Your task to perform on an android device: Show me popular videos on Youtube Image 0: 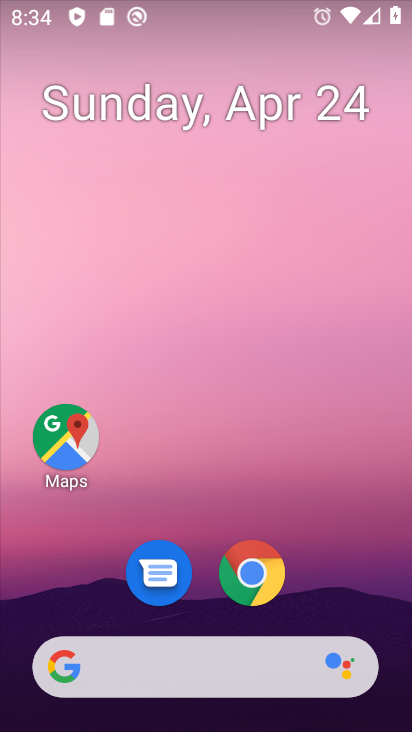
Step 0: drag from (336, 598) to (255, 49)
Your task to perform on an android device: Show me popular videos on Youtube Image 1: 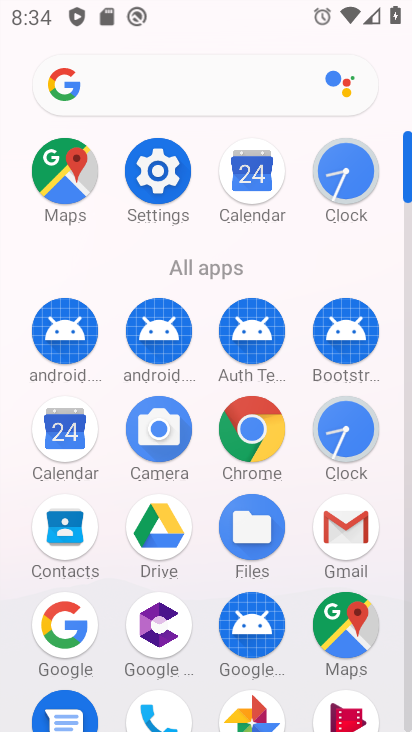
Step 1: click (246, 77)
Your task to perform on an android device: Show me popular videos on Youtube Image 2: 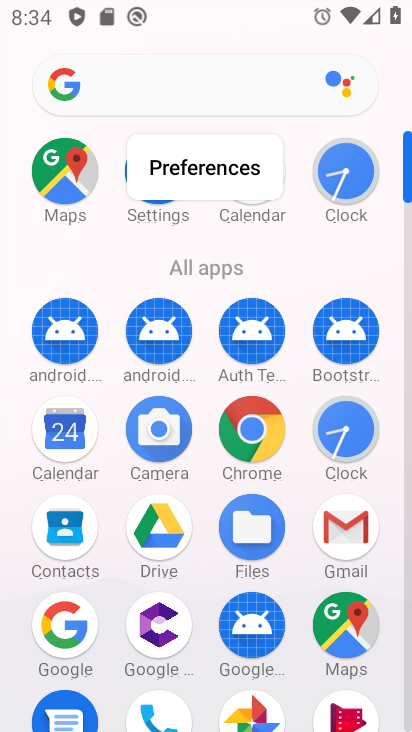
Step 2: drag from (391, 679) to (357, 98)
Your task to perform on an android device: Show me popular videos on Youtube Image 3: 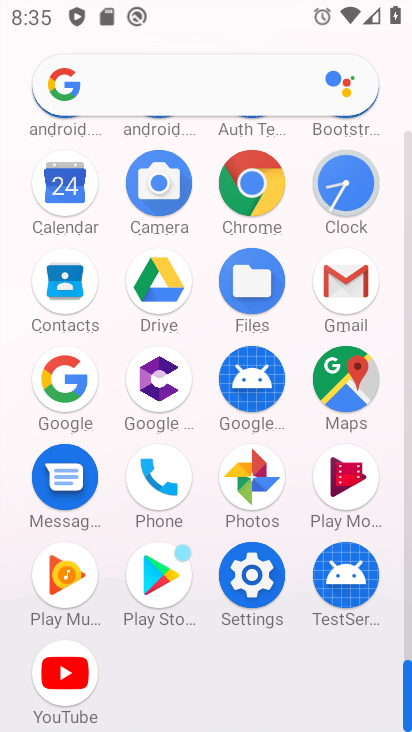
Step 3: click (65, 676)
Your task to perform on an android device: Show me popular videos on Youtube Image 4: 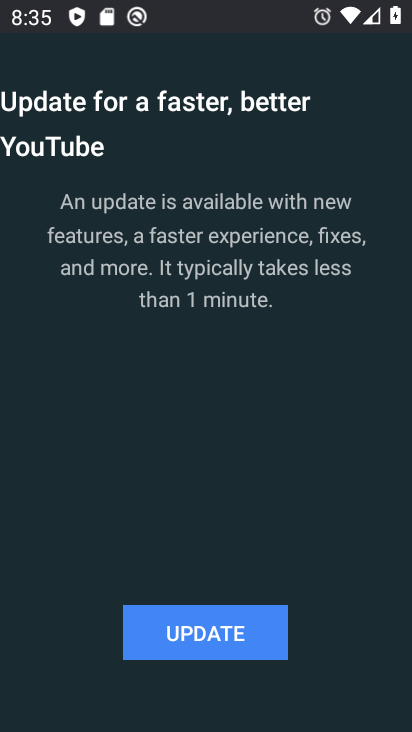
Step 4: click (194, 641)
Your task to perform on an android device: Show me popular videos on Youtube Image 5: 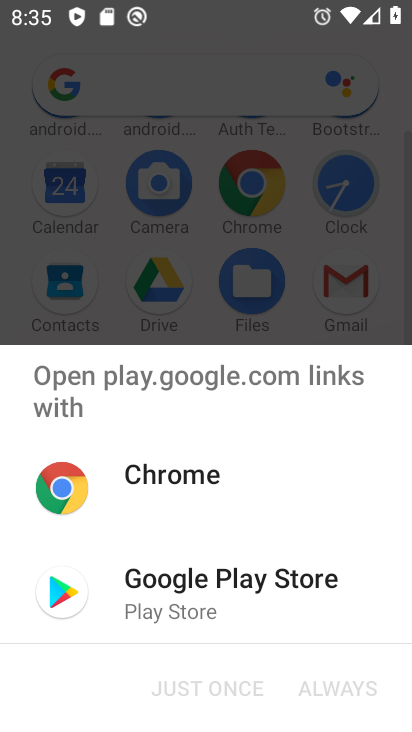
Step 5: click (169, 588)
Your task to perform on an android device: Show me popular videos on Youtube Image 6: 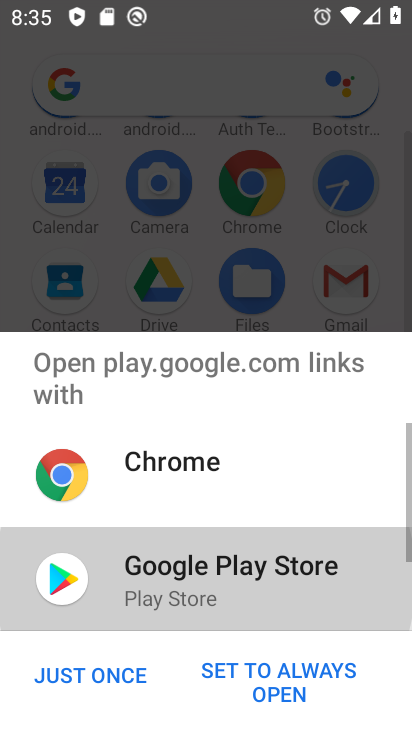
Step 6: click (169, 588)
Your task to perform on an android device: Show me popular videos on Youtube Image 7: 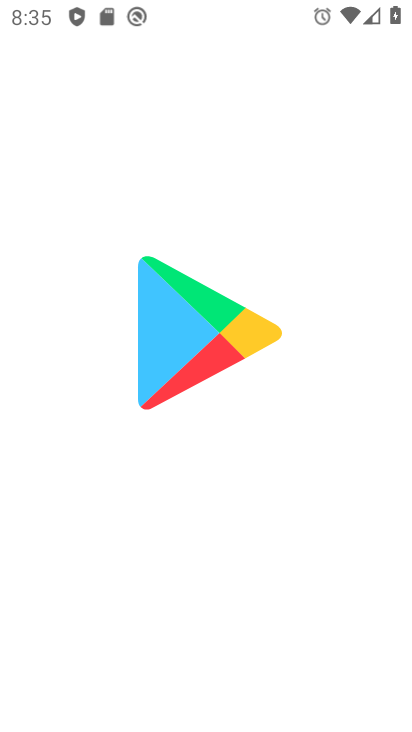
Step 7: click (94, 680)
Your task to perform on an android device: Show me popular videos on Youtube Image 8: 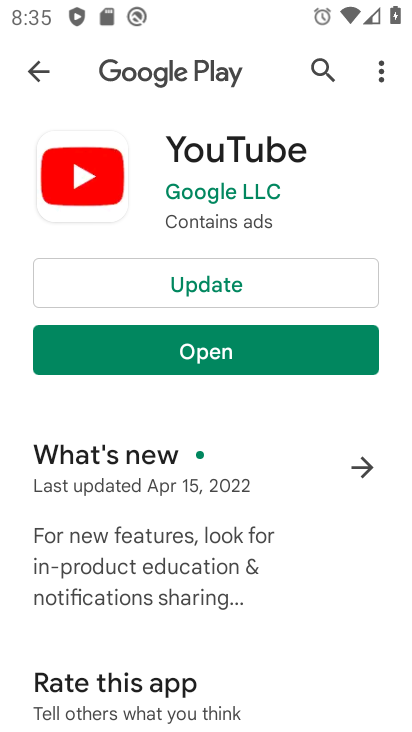
Step 8: click (182, 288)
Your task to perform on an android device: Show me popular videos on Youtube Image 9: 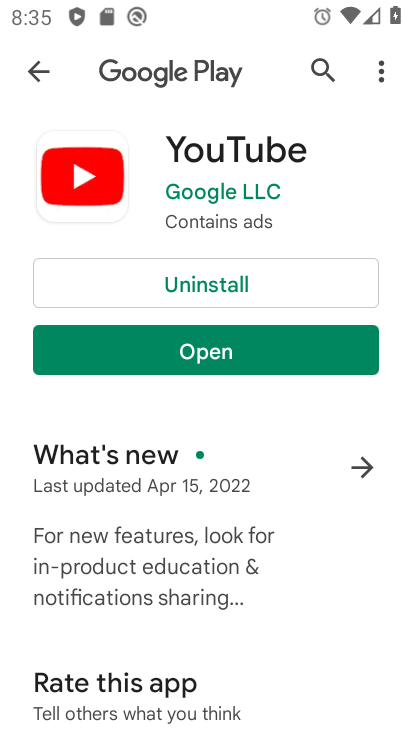
Step 9: click (207, 360)
Your task to perform on an android device: Show me popular videos on Youtube Image 10: 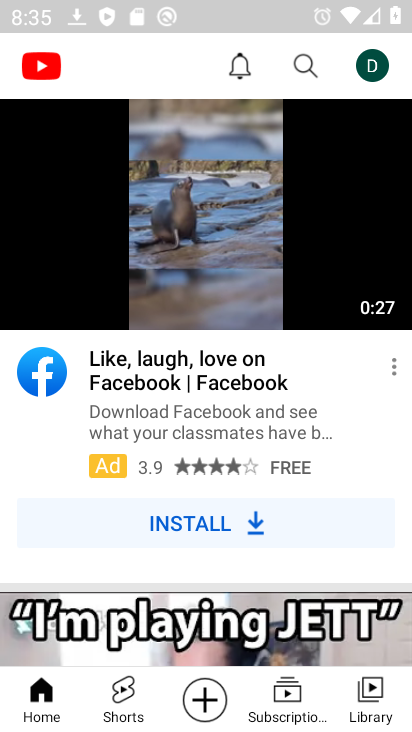
Step 10: click (122, 690)
Your task to perform on an android device: Show me popular videos on Youtube Image 11: 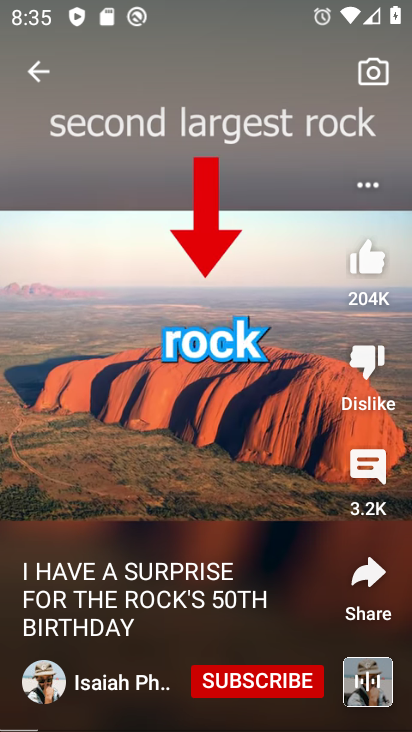
Step 11: task complete